Your task to perform on an android device: Open calendar and show me the second week of next month Image 0: 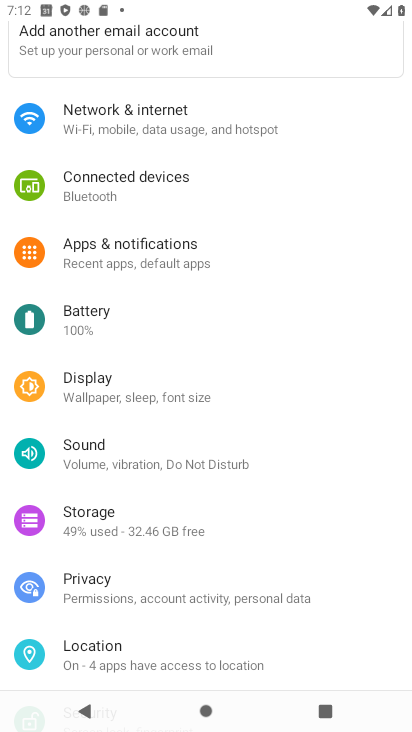
Step 0: press home button
Your task to perform on an android device: Open calendar and show me the second week of next month Image 1: 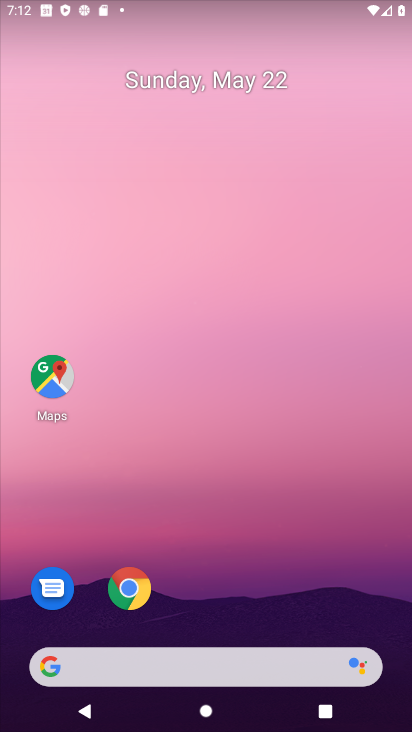
Step 1: drag from (254, 499) to (211, 49)
Your task to perform on an android device: Open calendar and show me the second week of next month Image 2: 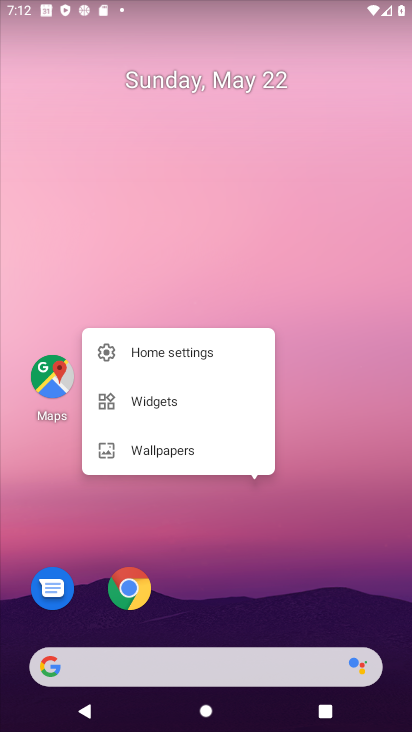
Step 2: click (335, 531)
Your task to perform on an android device: Open calendar and show me the second week of next month Image 3: 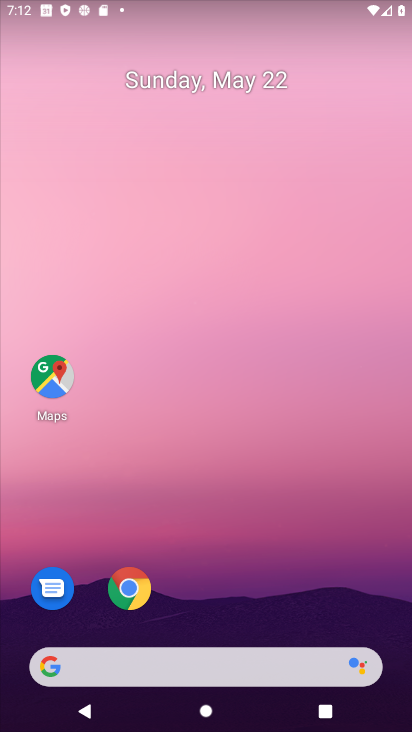
Step 3: drag from (249, 590) to (209, 4)
Your task to perform on an android device: Open calendar and show me the second week of next month Image 4: 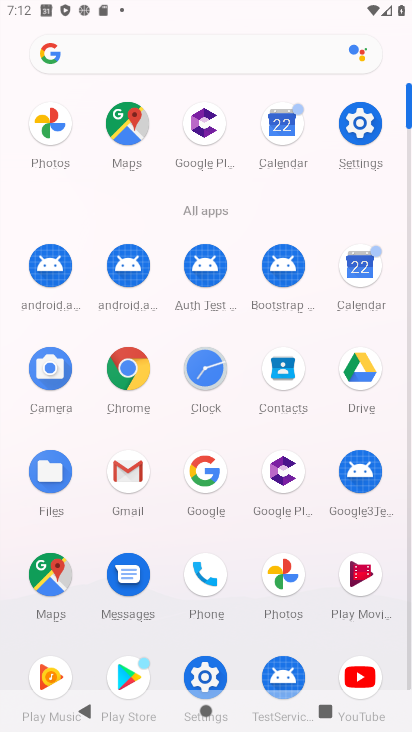
Step 4: click (358, 262)
Your task to perform on an android device: Open calendar and show me the second week of next month Image 5: 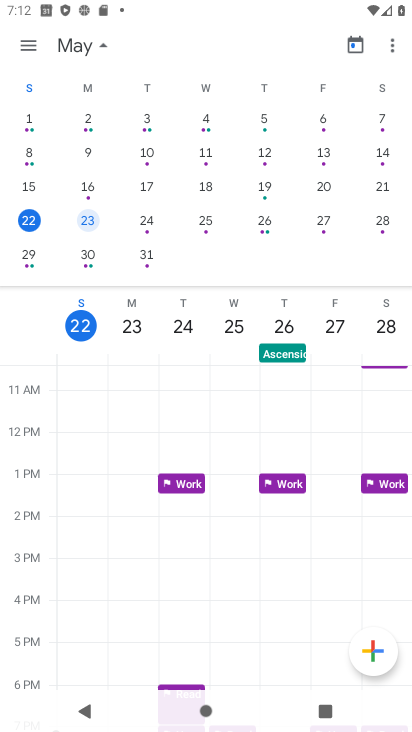
Step 5: click (102, 42)
Your task to perform on an android device: Open calendar and show me the second week of next month Image 6: 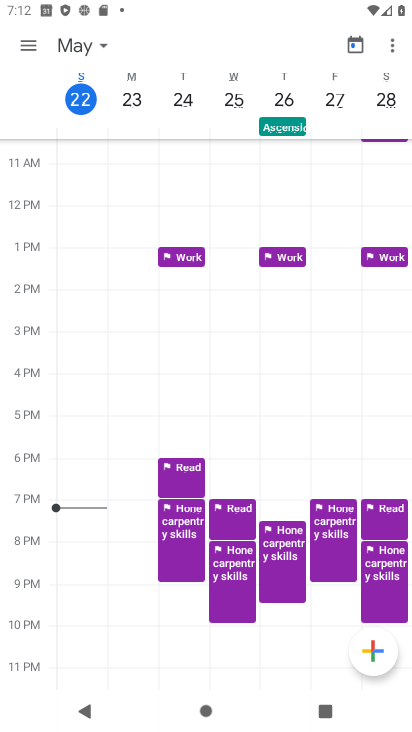
Step 6: click (102, 42)
Your task to perform on an android device: Open calendar and show me the second week of next month Image 7: 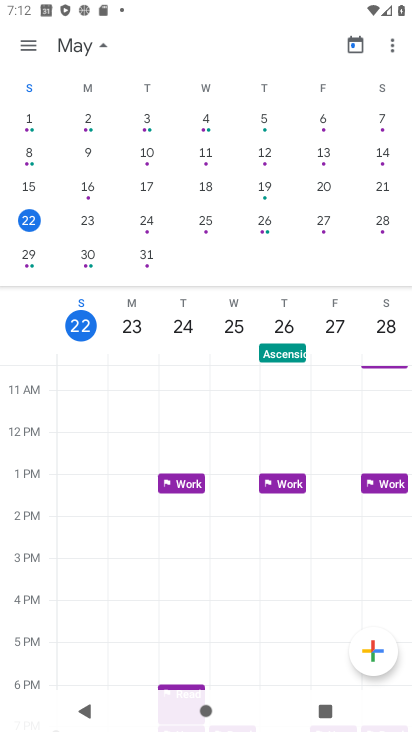
Step 7: drag from (354, 169) to (33, 155)
Your task to perform on an android device: Open calendar and show me the second week of next month Image 8: 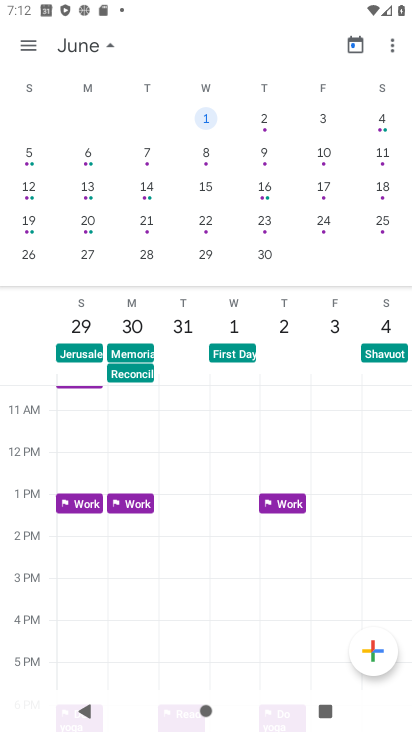
Step 8: click (141, 152)
Your task to perform on an android device: Open calendar and show me the second week of next month Image 9: 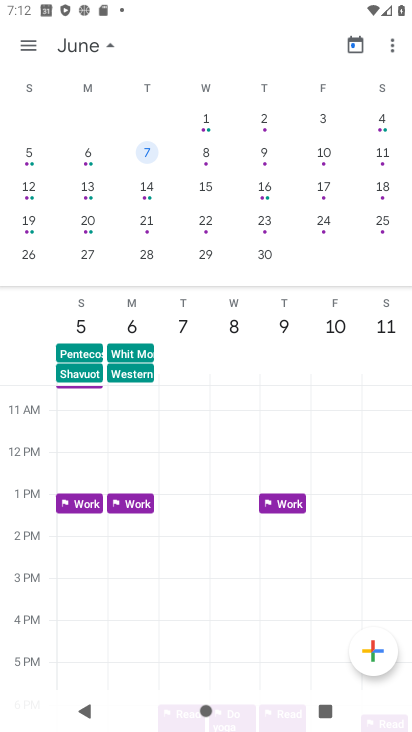
Step 9: task complete